Your task to perform on an android device: toggle improve location accuracy Image 0: 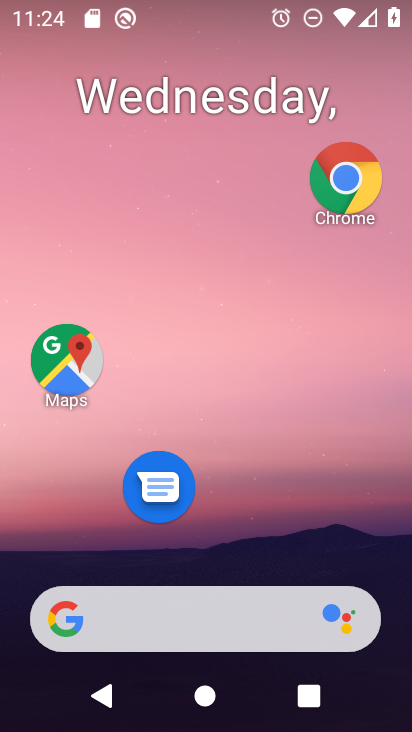
Step 0: drag from (203, 617) to (309, 108)
Your task to perform on an android device: toggle improve location accuracy Image 1: 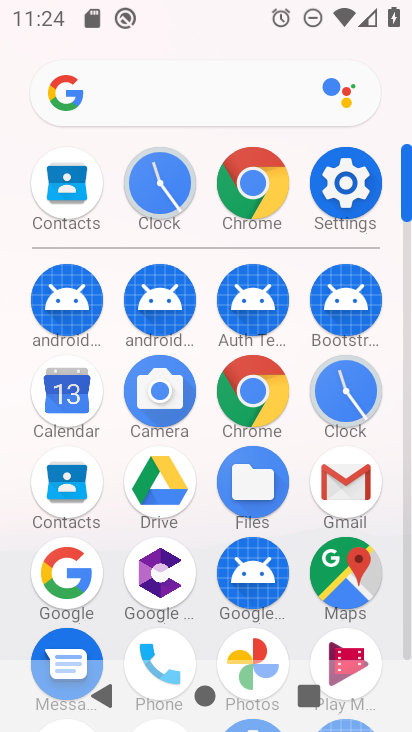
Step 1: click (336, 200)
Your task to perform on an android device: toggle improve location accuracy Image 2: 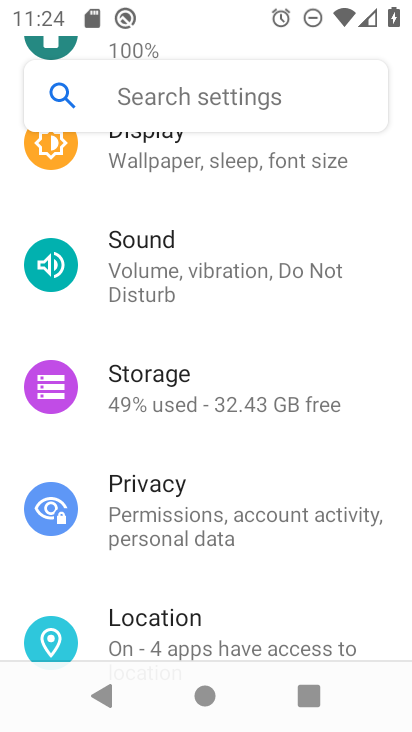
Step 2: drag from (193, 508) to (252, 298)
Your task to perform on an android device: toggle improve location accuracy Image 3: 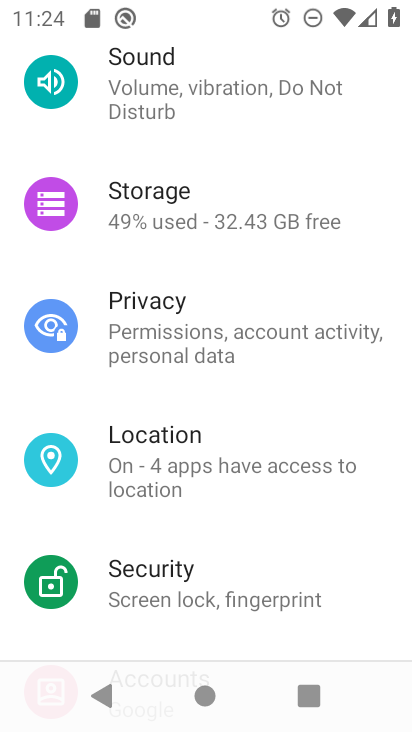
Step 3: click (188, 467)
Your task to perform on an android device: toggle improve location accuracy Image 4: 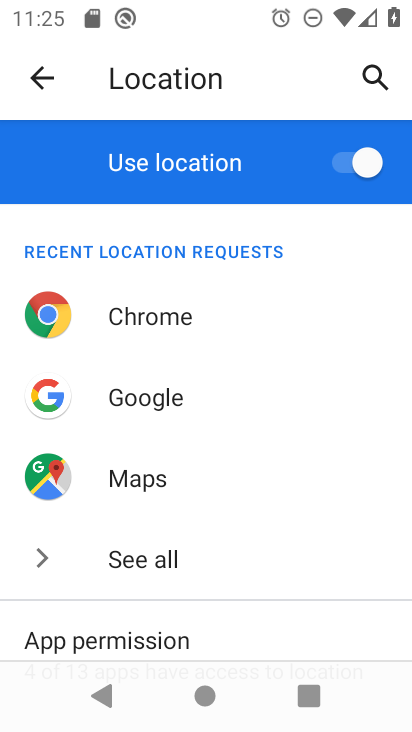
Step 4: drag from (171, 546) to (223, 256)
Your task to perform on an android device: toggle improve location accuracy Image 5: 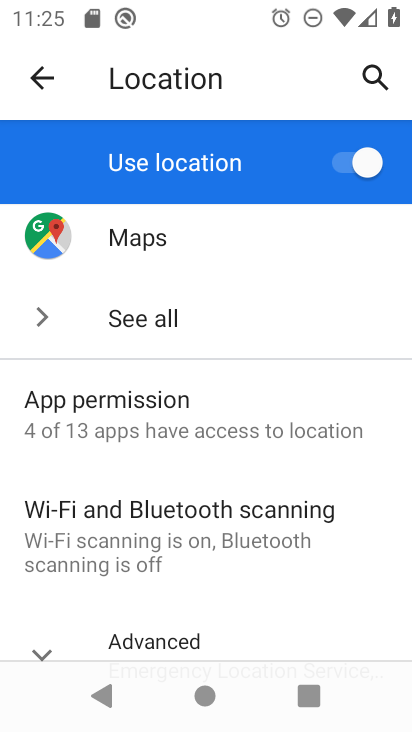
Step 5: drag from (179, 534) to (230, 276)
Your task to perform on an android device: toggle improve location accuracy Image 6: 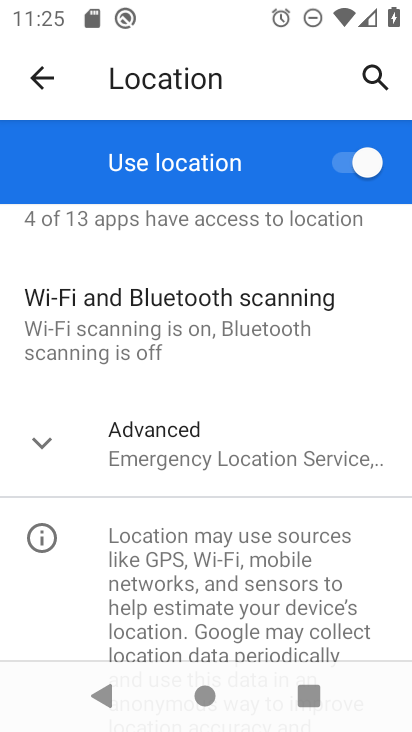
Step 6: click (172, 458)
Your task to perform on an android device: toggle improve location accuracy Image 7: 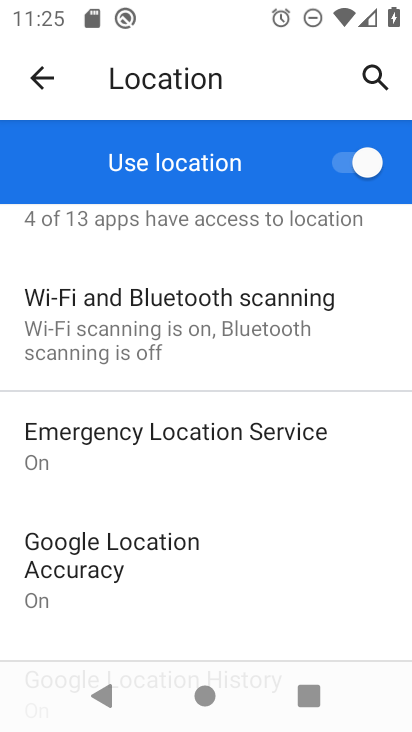
Step 7: click (142, 562)
Your task to perform on an android device: toggle improve location accuracy Image 8: 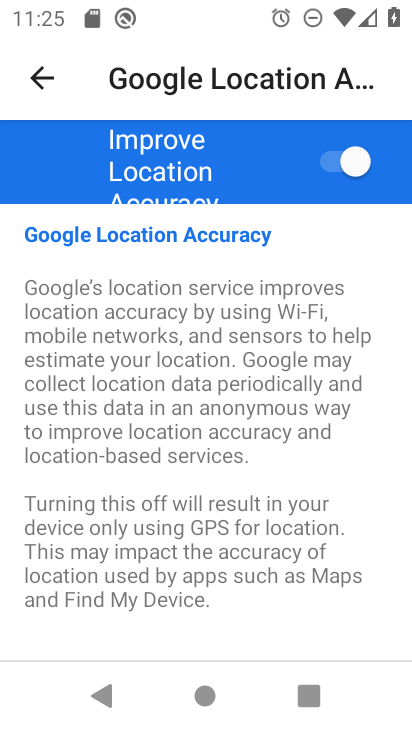
Step 8: click (332, 171)
Your task to perform on an android device: toggle improve location accuracy Image 9: 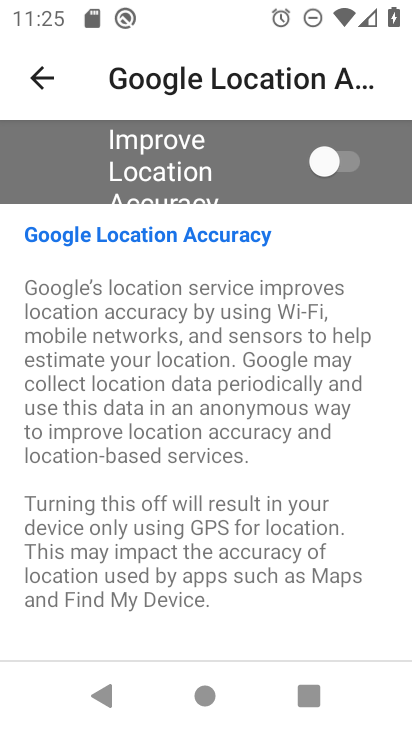
Step 9: task complete